Your task to perform on an android device: Open the web browser Image 0: 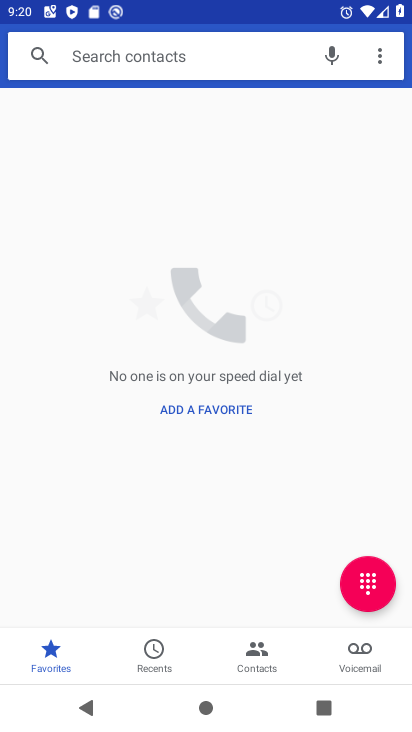
Step 0: press home button
Your task to perform on an android device: Open the web browser Image 1: 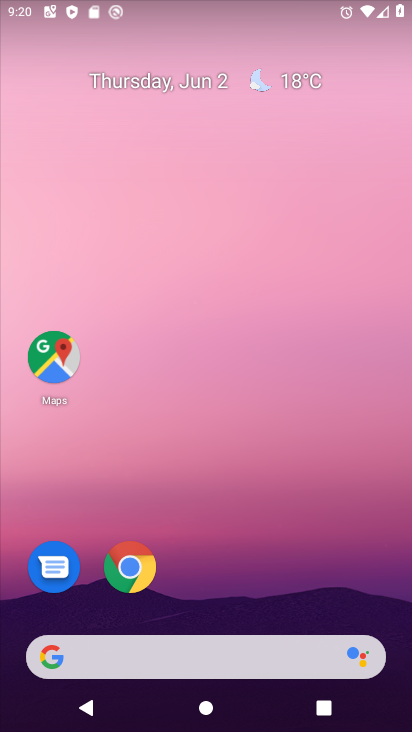
Step 1: drag from (210, 605) to (213, 68)
Your task to perform on an android device: Open the web browser Image 2: 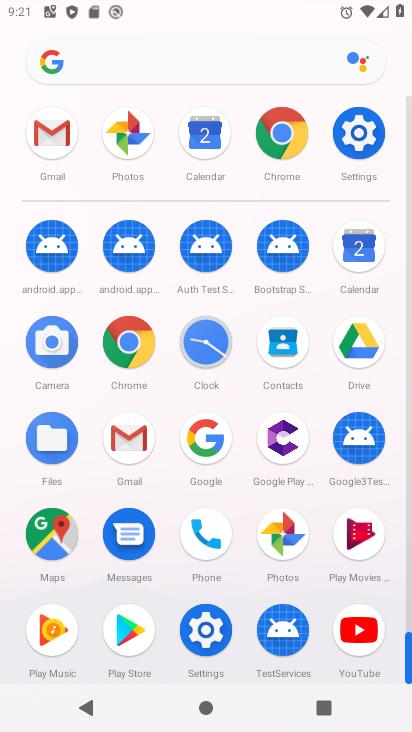
Step 2: click (127, 366)
Your task to perform on an android device: Open the web browser Image 3: 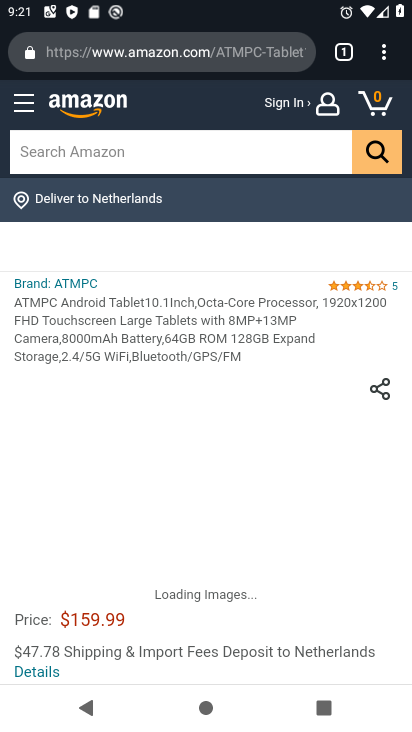
Step 3: task complete